Your task to perform on an android device: toggle data saver in the chrome app Image 0: 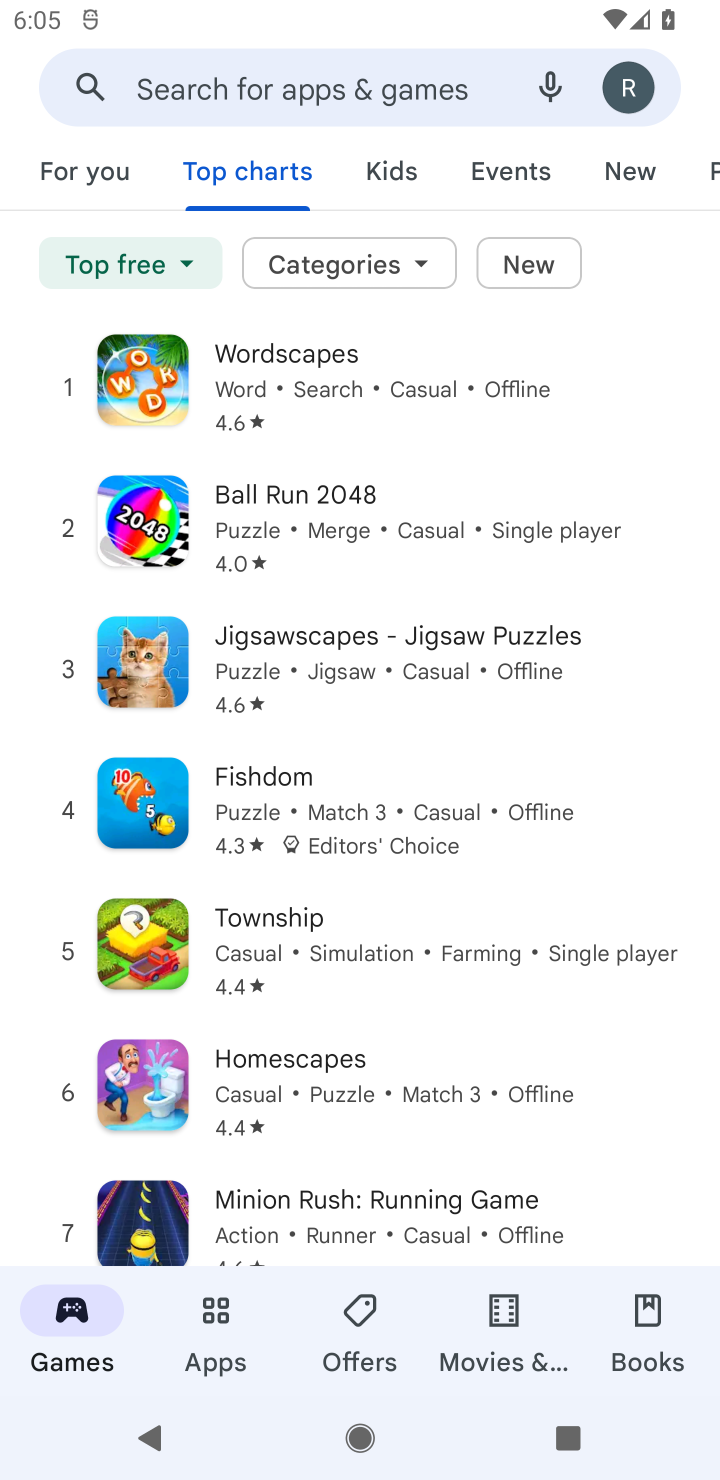
Step 0: press home button
Your task to perform on an android device: toggle data saver in the chrome app Image 1: 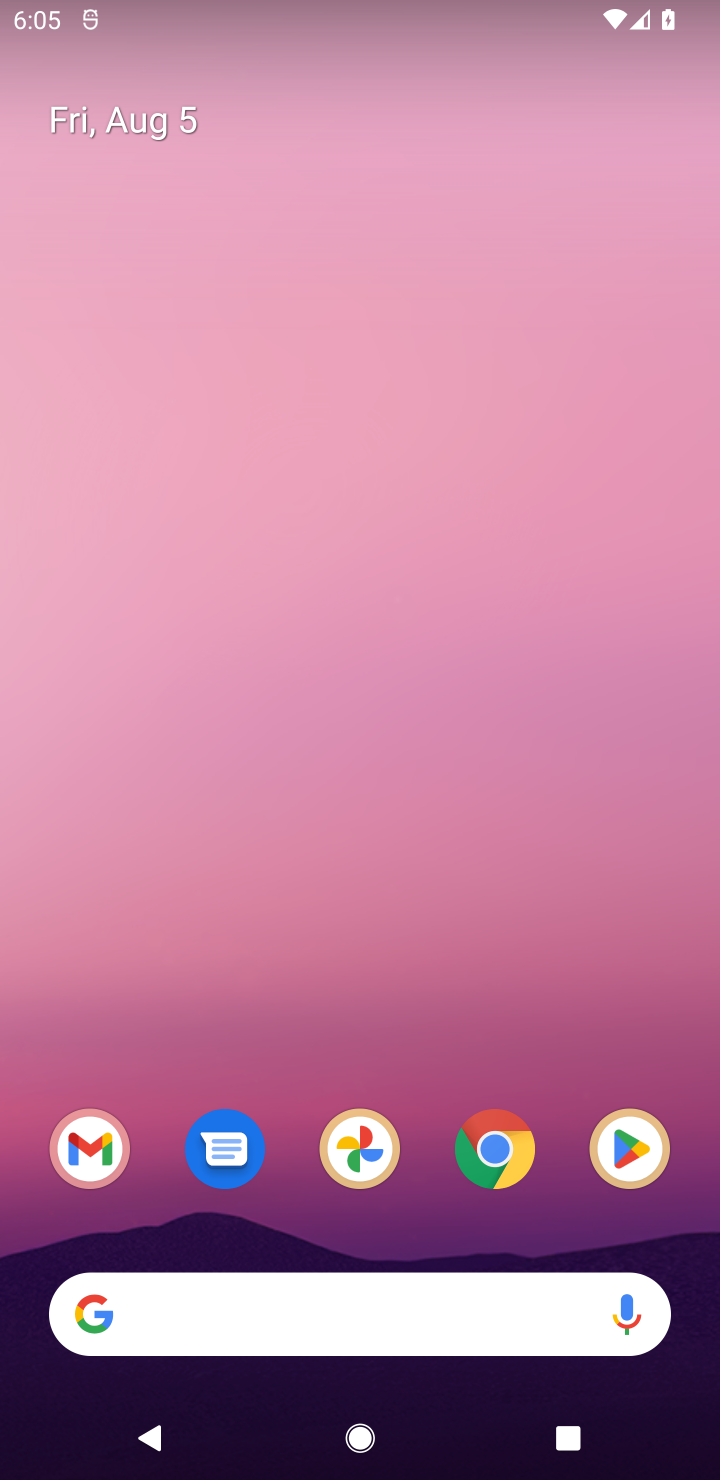
Step 1: click (491, 1157)
Your task to perform on an android device: toggle data saver in the chrome app Image 2: 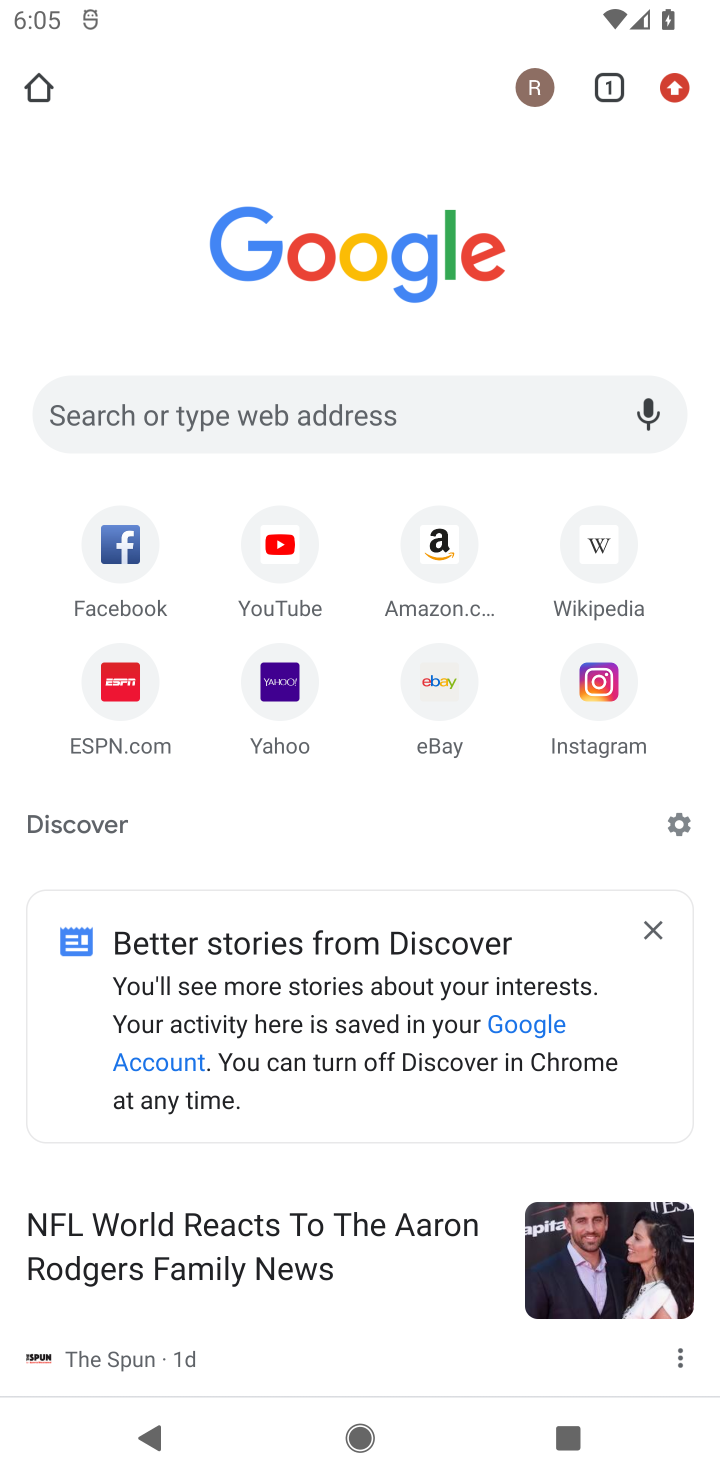
Step 2: click (670, 94)
Your task to perform on an android device: toggle data saver in the chrome app Image 3: 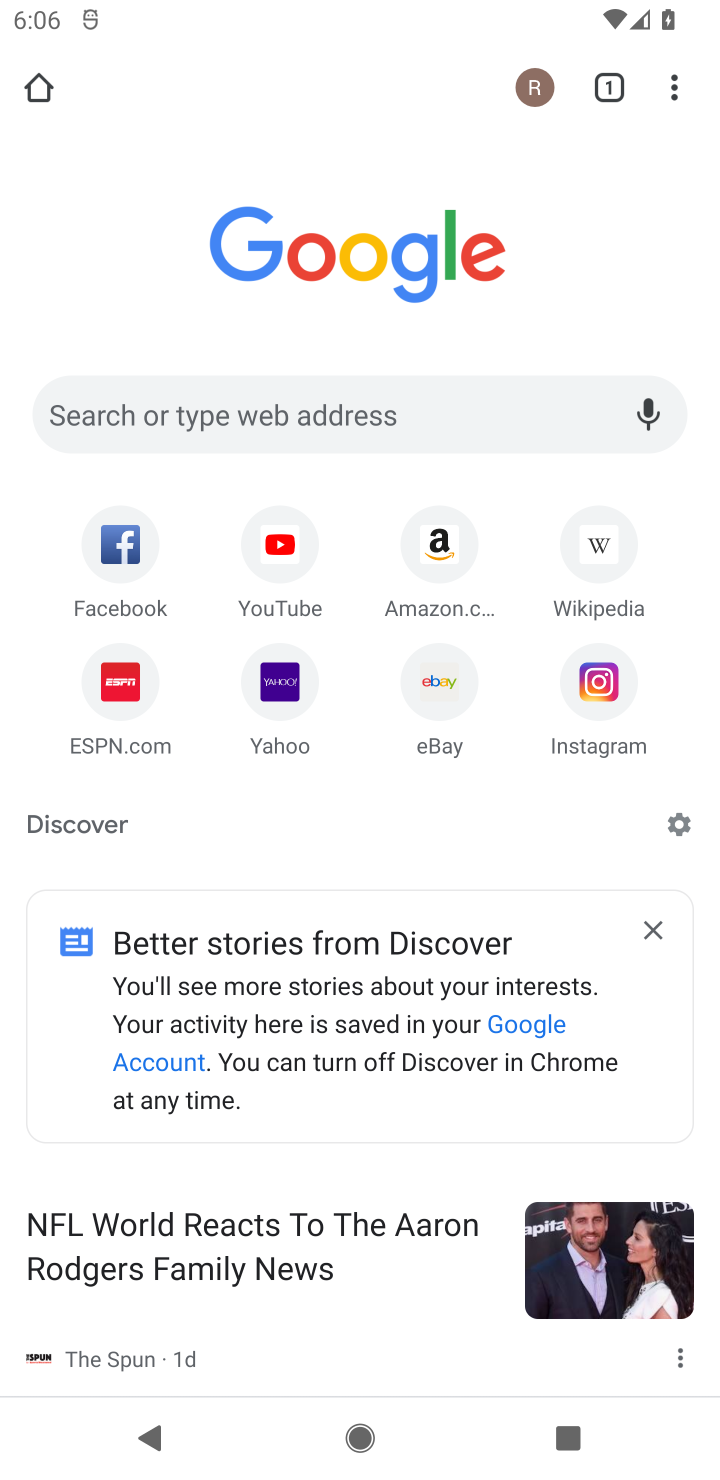
Step 3: click (670, 88)
Your task to perform on an android device: toggle data saver in the chrome app Image 4: 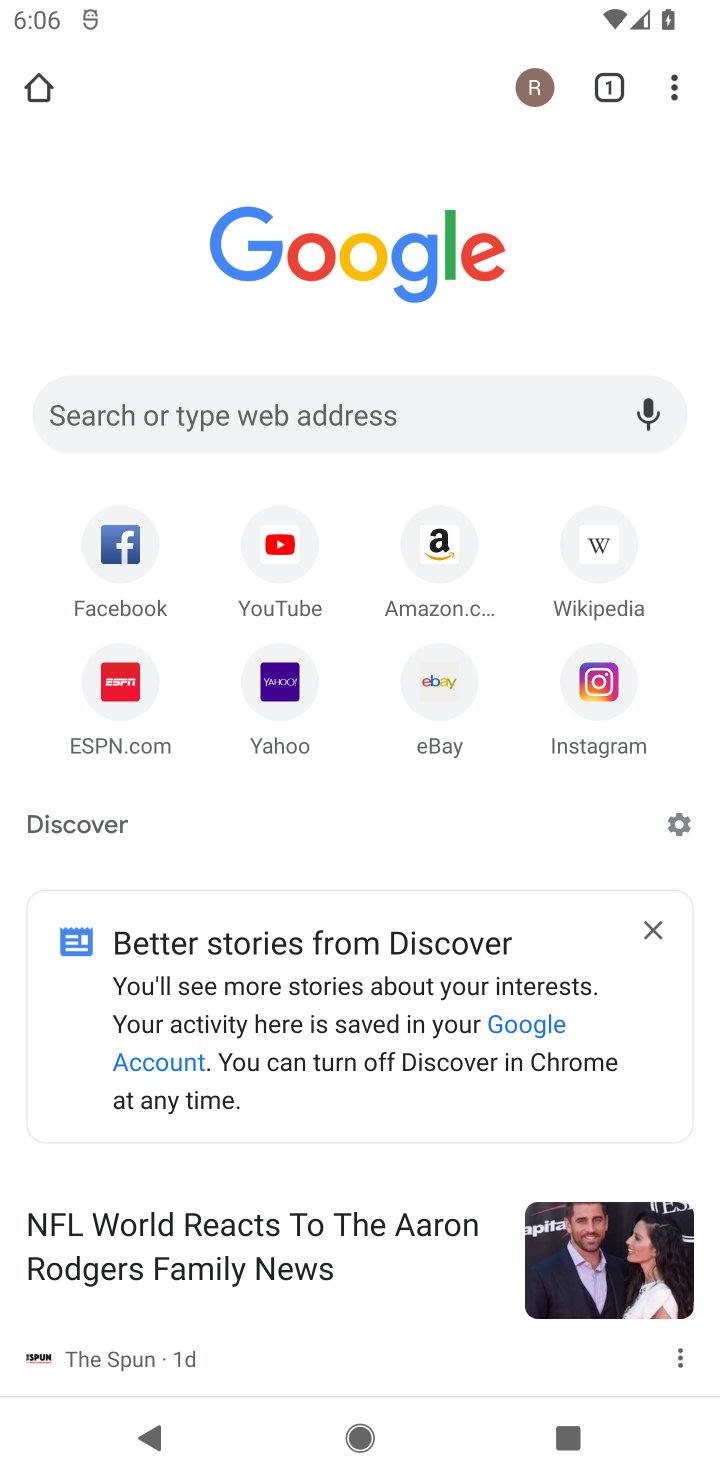
Step 4: click (670, 88)
Your task to perform on an android device: toggle data saver in the chrome app Image 5: 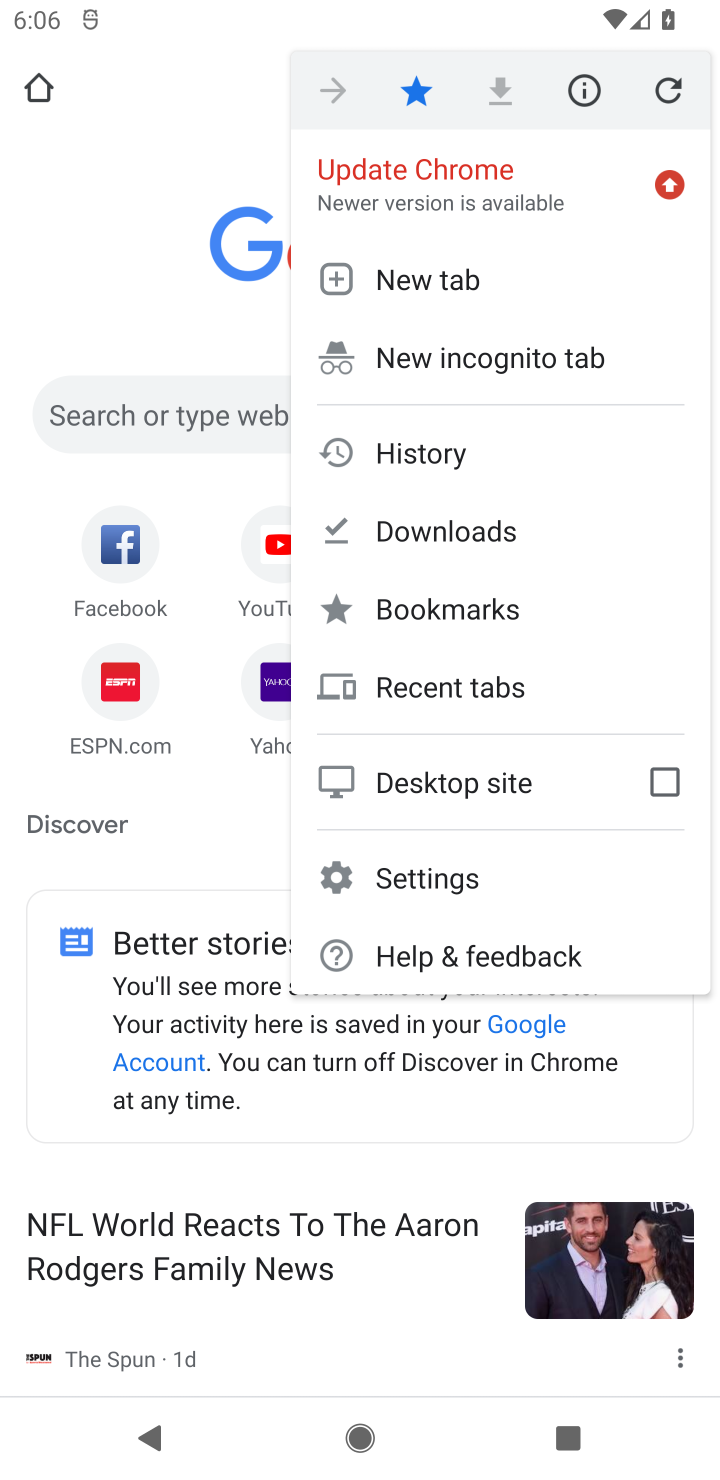
Step 5: click (442, 871)
Your task to perform on an android device: toggle data saver in the chrome app Image 6: 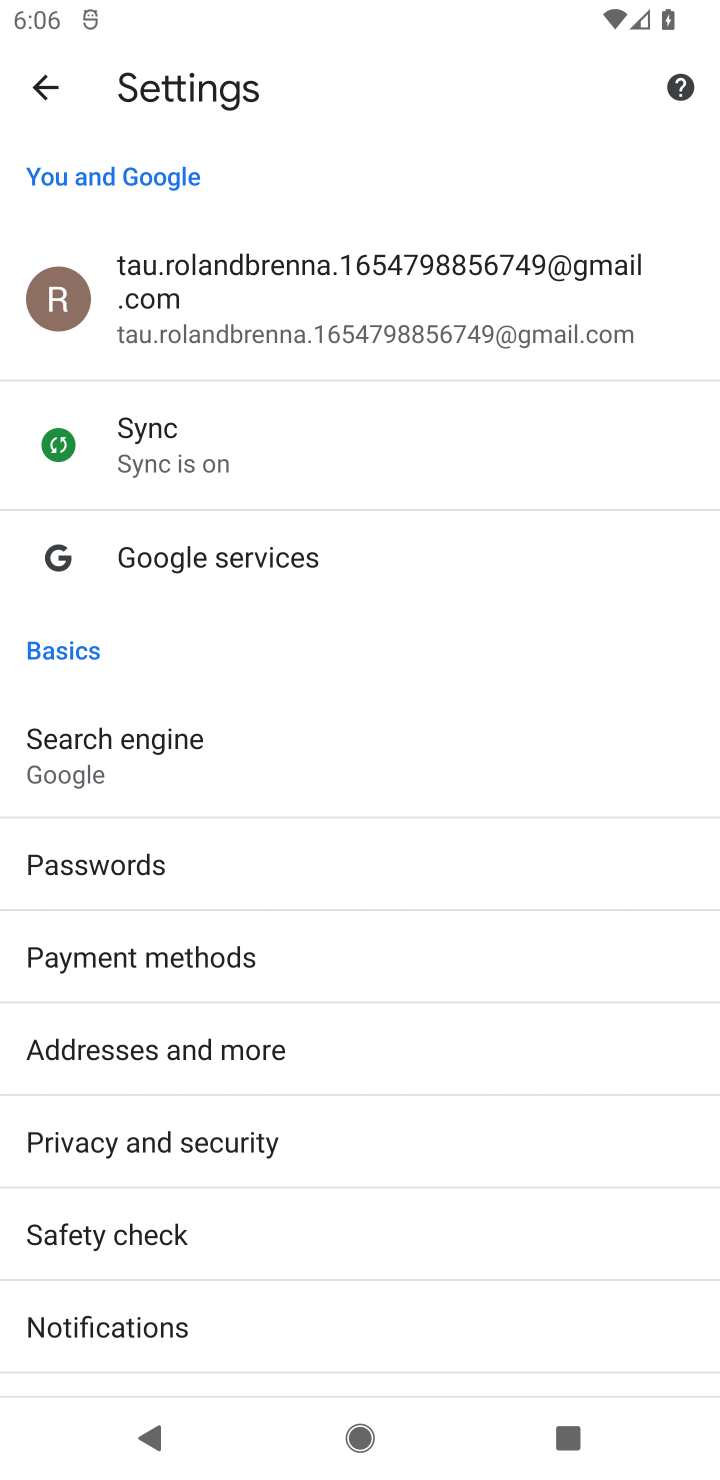
Step 6: drag from (459, 1121) to (510, 191)
Your task to perform on an android device: toggle data saver in the chrome app Image 7: 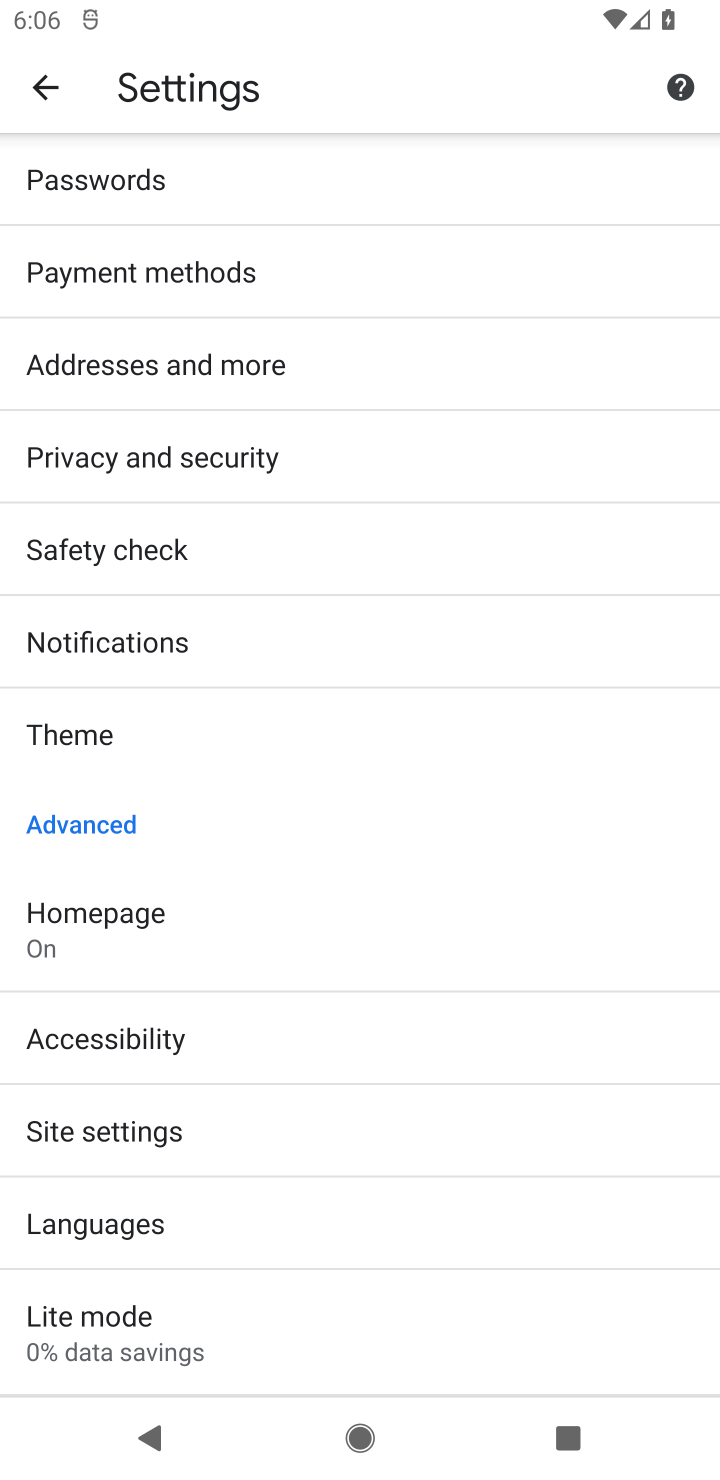
Step 7: click (119, 1313)
Your task to perform on an android device: toggle data saver in the chrome app Image 8: 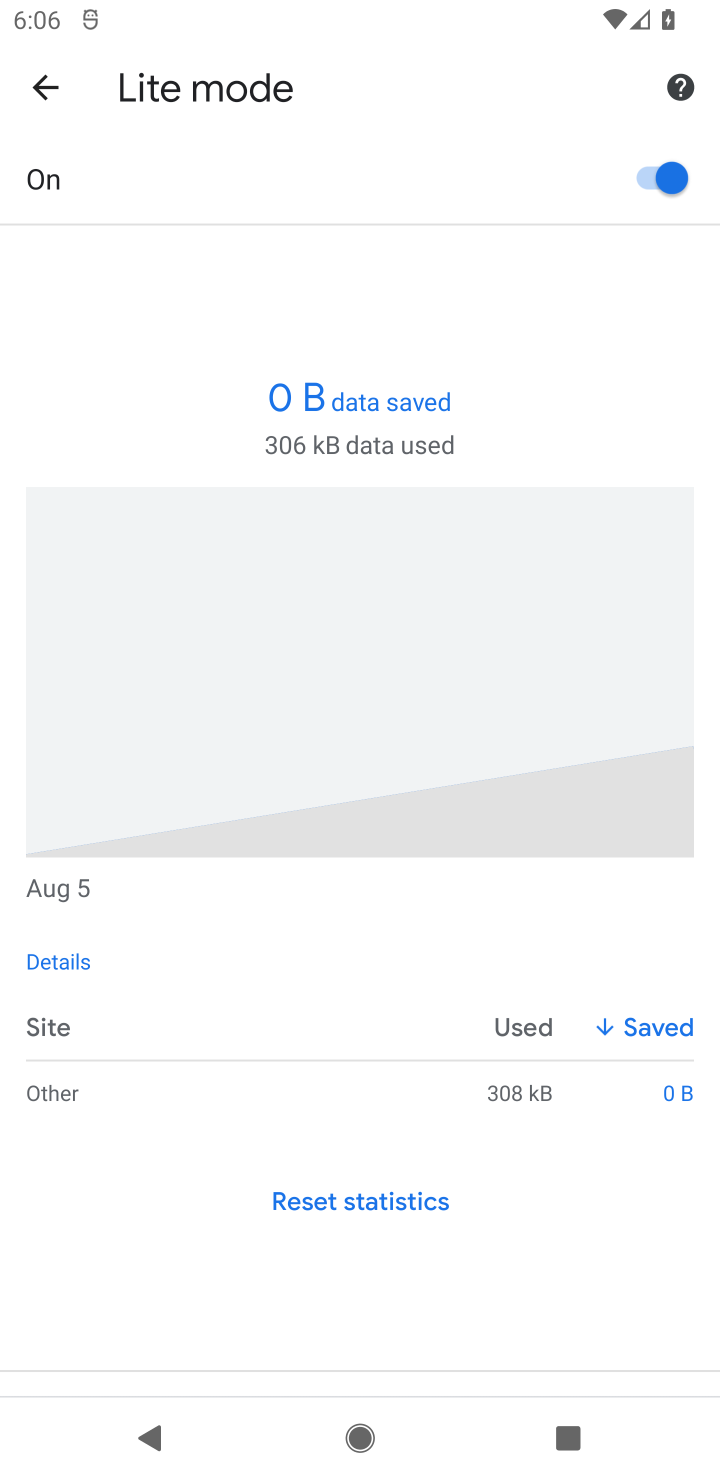
Step 8: click (661, 176)
Your task to perform on an android device: toggle data saver in the chrome app Image 9: 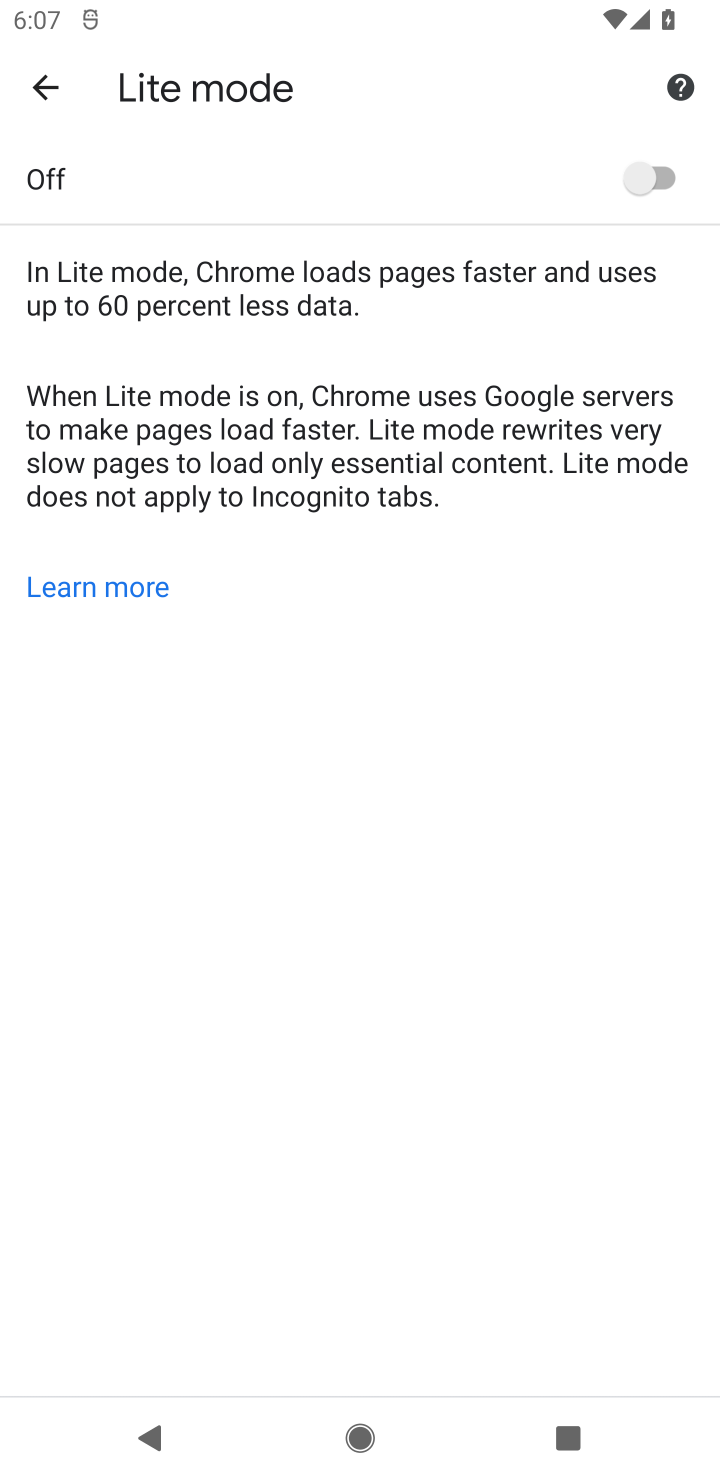
Step 9: task complete